Your task to perform on an android device: Check the news Image 0: 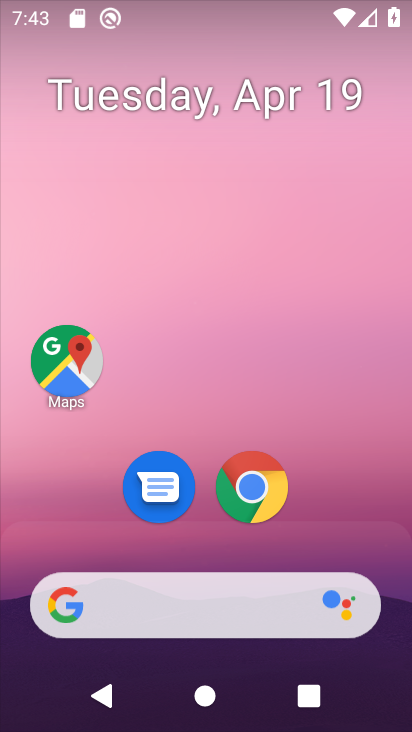
Step 0: drag from (211, 555) to (211, 61)
Your task to perform on an android device: Check the news Image 1: 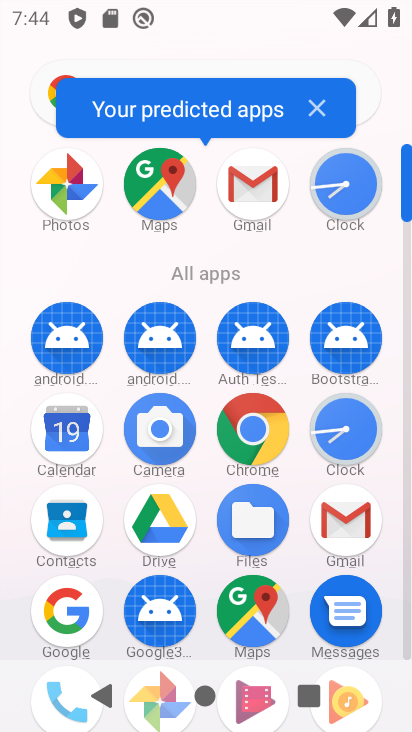
Step 1: click (251, 427)
Your task to perform on an android device: Check the news Image 2: 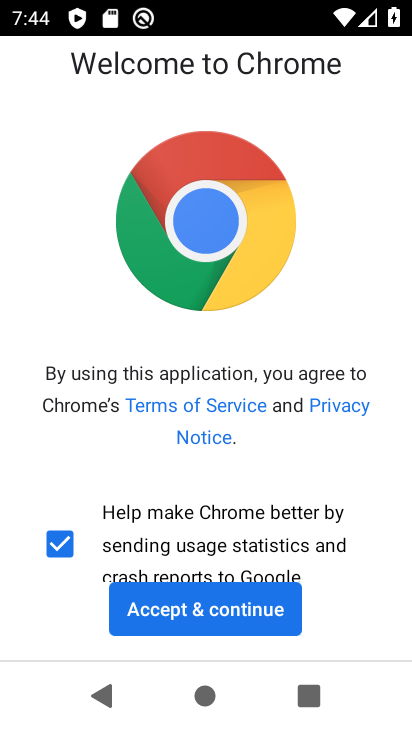
Step 2: click (206, 608)
Your task to perform on an android device: Check the news Image 3: 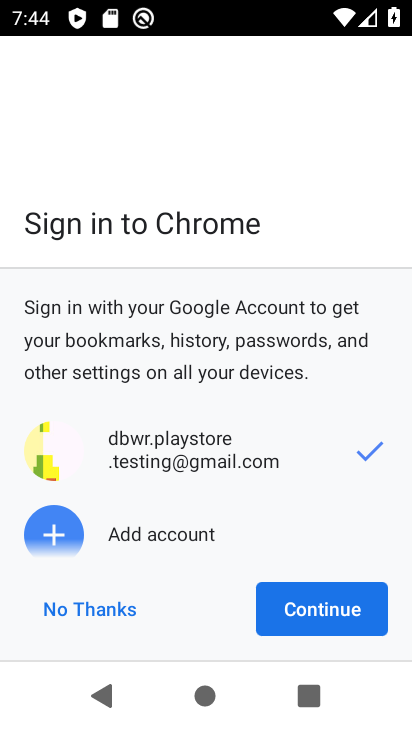
Step 3: click (328, 612)
Your task to perform on an android device: Check the news Image 4: 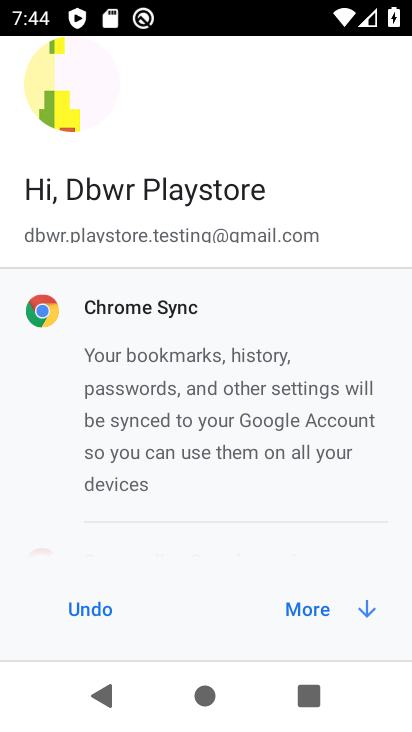
Step 4: click (315, 609)
Your task to perform on an android device: Check the news Image 5: 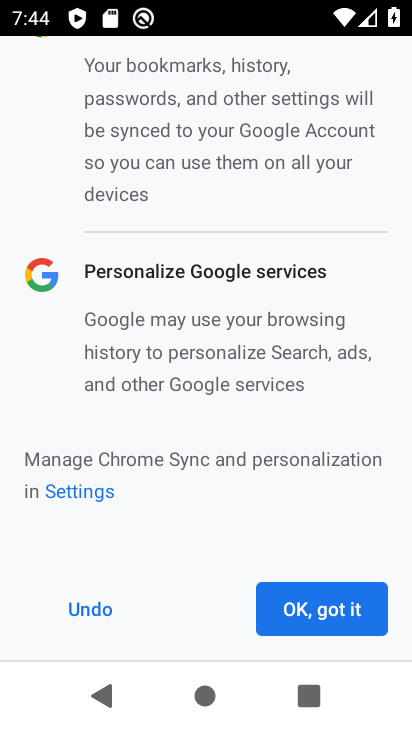
Step 5: click (315, 609)
Your task to perform on an android device: Check the news Image 6: 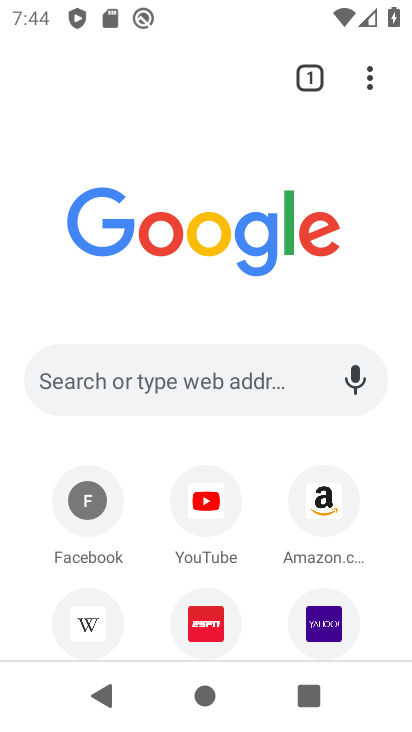
Step 6: task complete